Your task to perform on an android device: turn smart compose on in the gmail app Image 0: 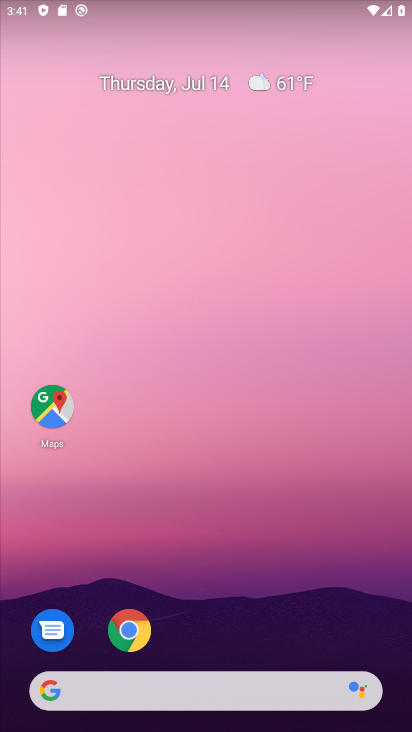
Step 0: drag from (263, 596) to (232, 244)
Your task to perform on an android device: turn smart compose on in the gmail app Image 1: 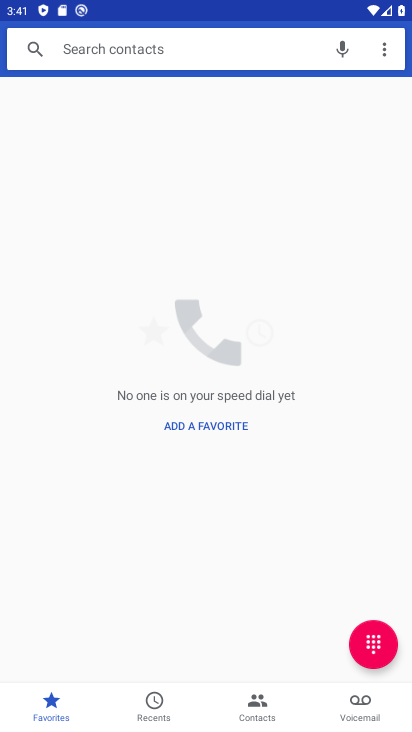
Step 1: press home button
Your task to perform on an android device: turn smart compose on in the gmail app Image 2: 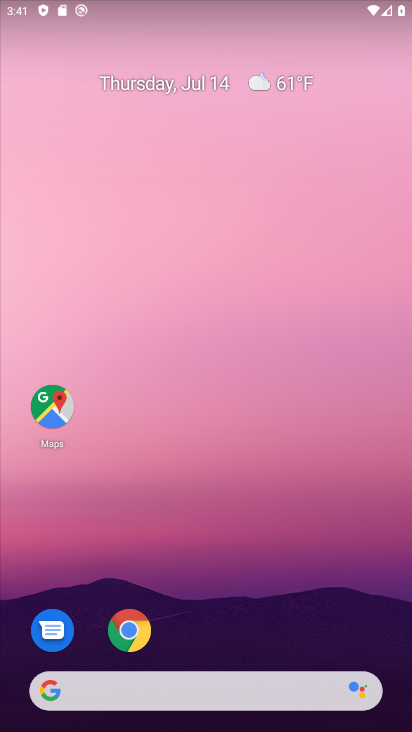
Step 2: drag from (314, 614) to (230, 144)
Your task to perform on an android device: turn smart compose on in the gmail app Image 3: 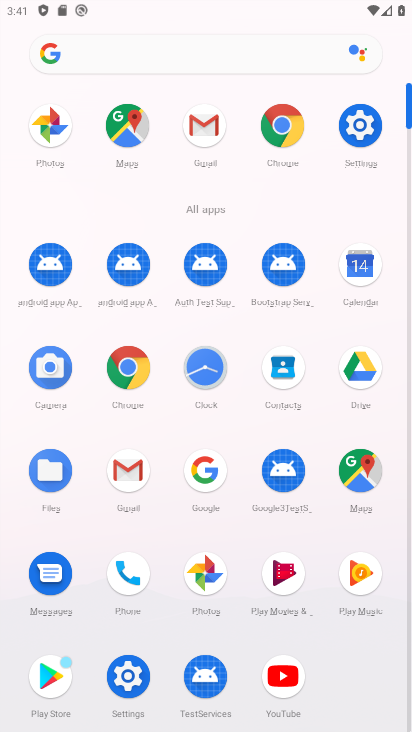
Step 3: click (204, 133)
Your task to perform on an android device: turn smart compose on in the gmail app Image 4: 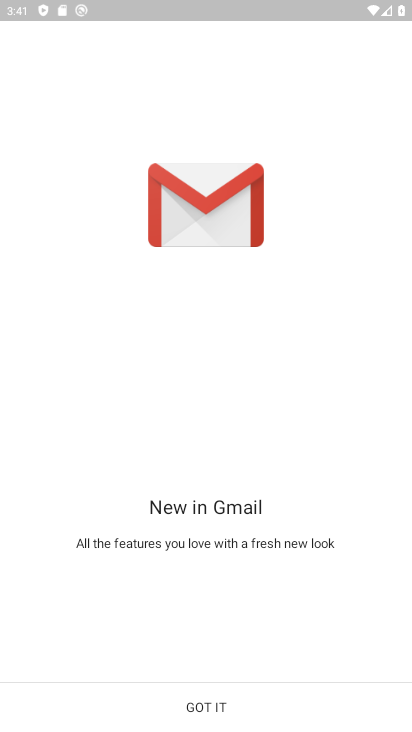
Step 4: click (215, 705)
Your task to perform on an android device: turn smart compose on in the gmail app Image 5: 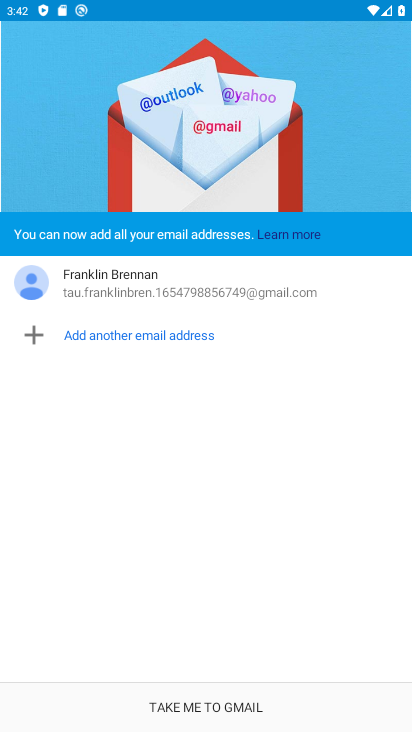
Step 5: click (215, 705)
Your task to perform on an android device: turn smart compose on in the gmail app Image 6: 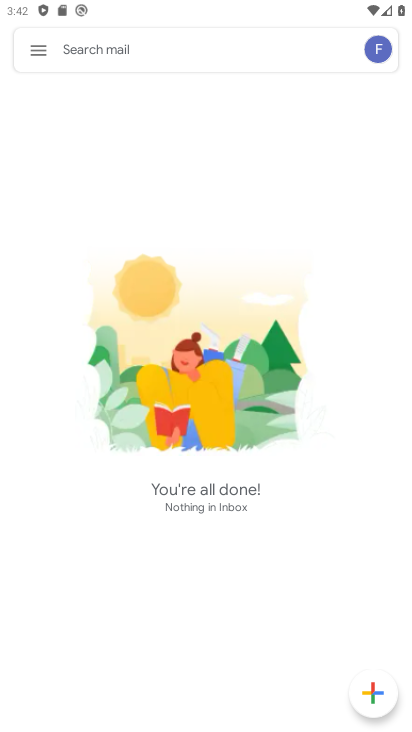
Step 6: click (36, 45)
Your task to perform on an android device: turn smart compose on in the gmail app Image 7: 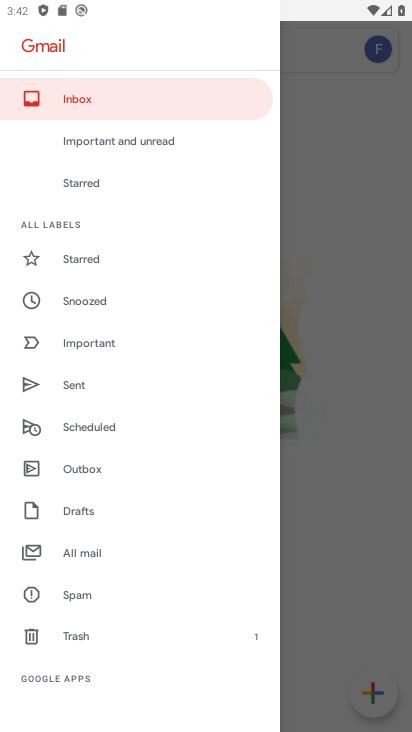
Step 7: drag from (102, 676) to (77, 430)
Your task to perform on an android device: turn smart compose on in the gmail app Image 8: 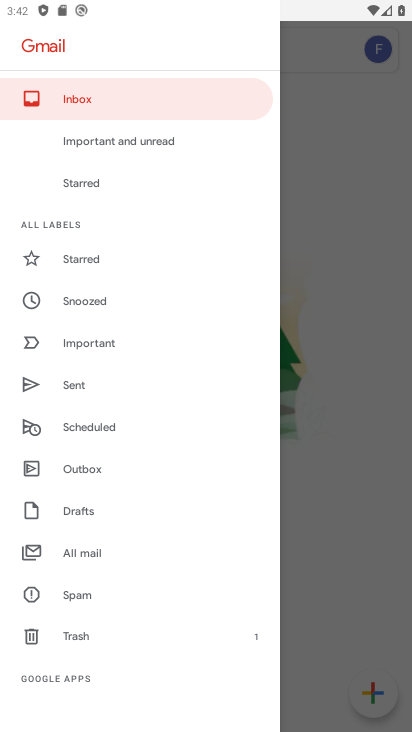
Step 8: drag from (78, 667) to (45, 430)
Your task to perform on an android device: turn smart compose on in the gmail app Image 9: 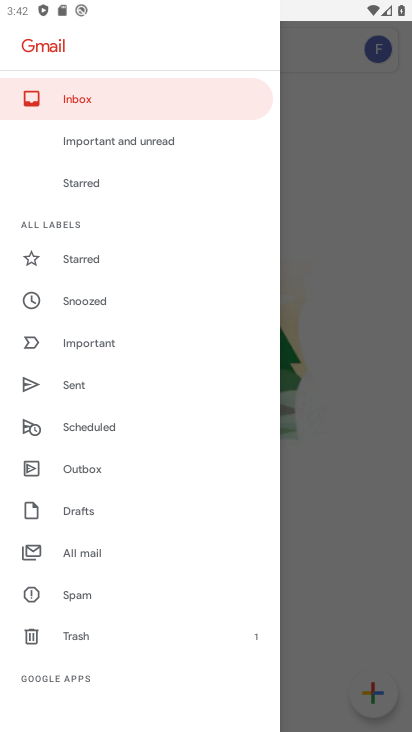
Step 9: drag from (105, 665) to (97, 400)
Your task to perform on an android device: turn smart compose on in the gmail app Image 10: 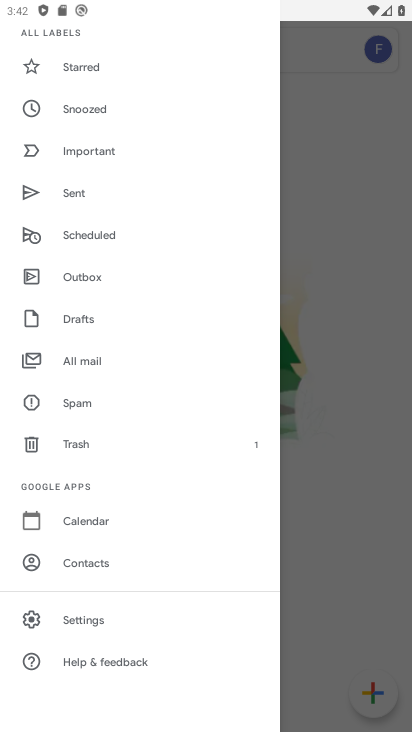
Step 10: click (106, 623)
Your task to perform on an android device: turn smart compose on in the gmail app Image 11: 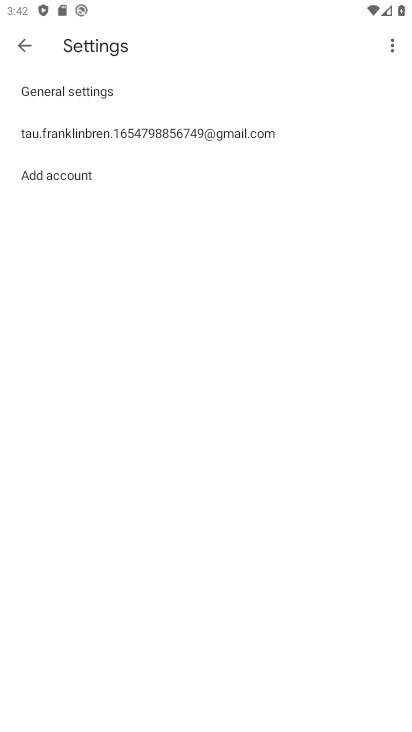
Step 11: click (212, 136)
Your task to perform on an android device: turn smart compose on in the gmail app Image 12: 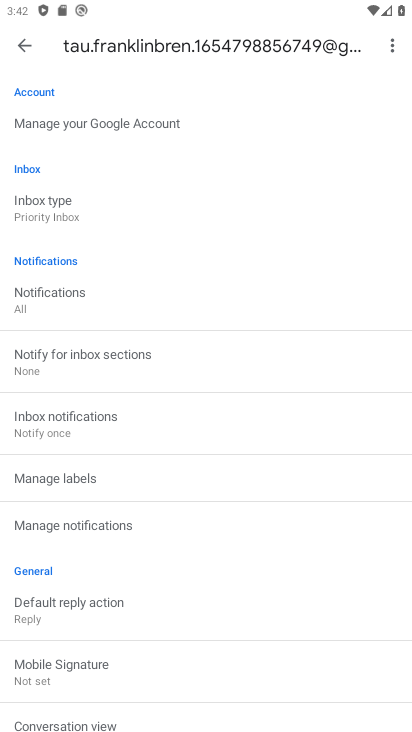
Step 12: task complete